Your task to perform on an android device: change text size in settings app Image 0: 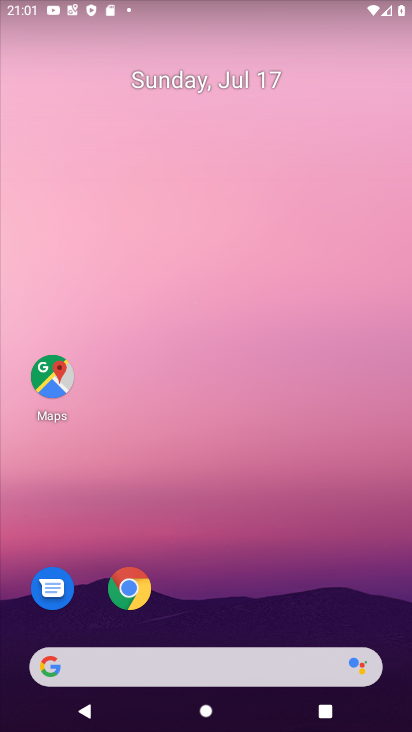
Step 0: press home button
Your task to perform on an android device: change text size in settings app Image 1: 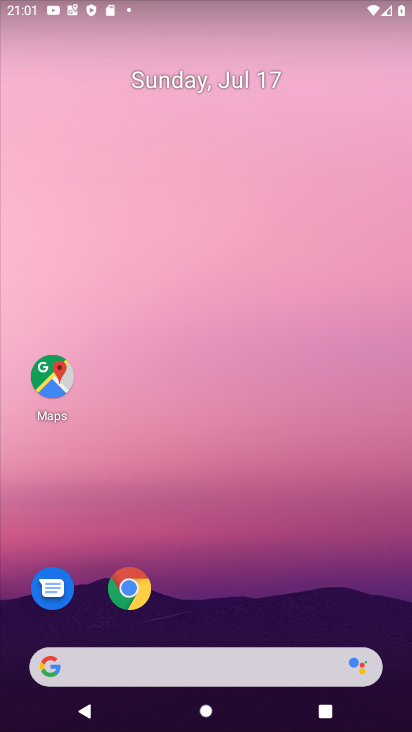
Step 1: drag from (308, 477) to (310, 115)
Your task to perform on an android device: change text size in settings app Image 2: 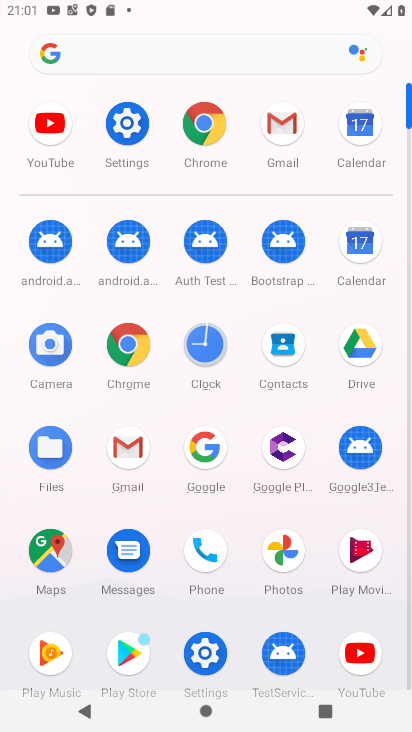
Step 2: click (198, 631)
Your task to perform on an android device: change text size in settings app Image 3: 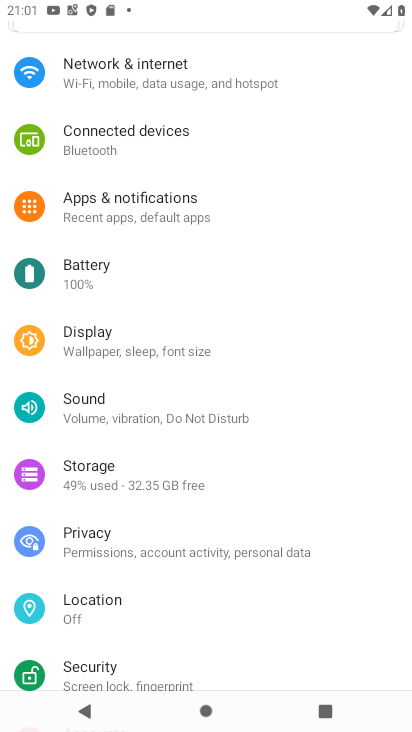
Step 3: click (160, 342)
Your task to perform on an android device: change text size in settings app Image 4: 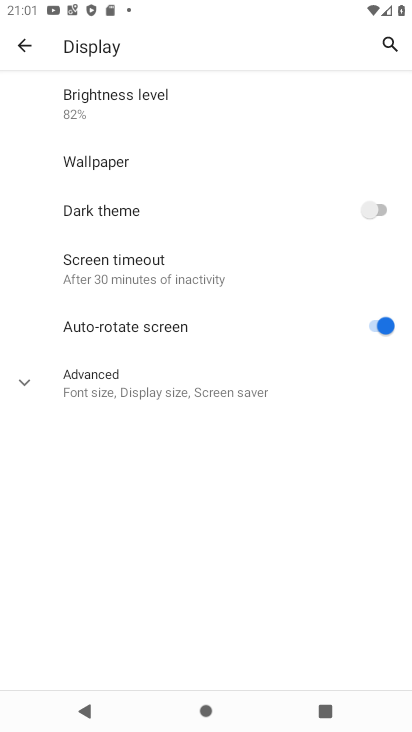
Step 4: click (108, 371)
Your task to perform on an android device: change text size in settings app Image 5: 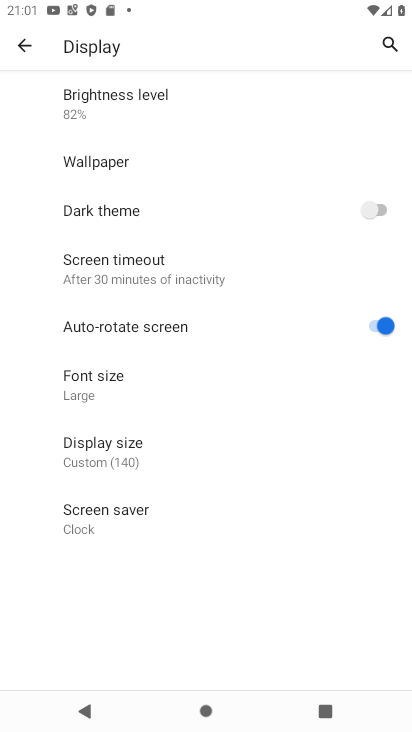
Step 5: click (108, 371)
Your task to perform on an android device: change text size in settings app Image 6: 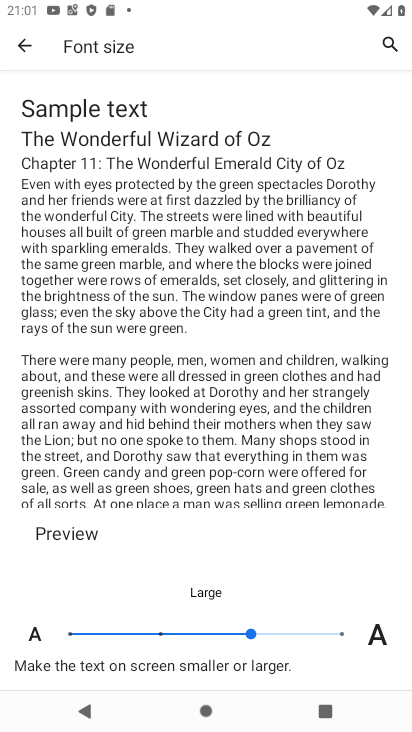
Step 6: click (378, 641)
Your task to perform on an android device: change text size in settings app Image 7: 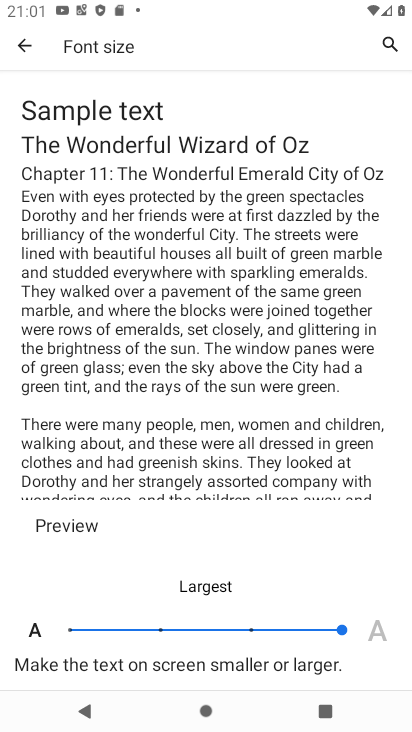
Step 7: task complete